Your task to perform on an android device: Open Google Chrome and click the shortcut for Amazon.com Image 0: 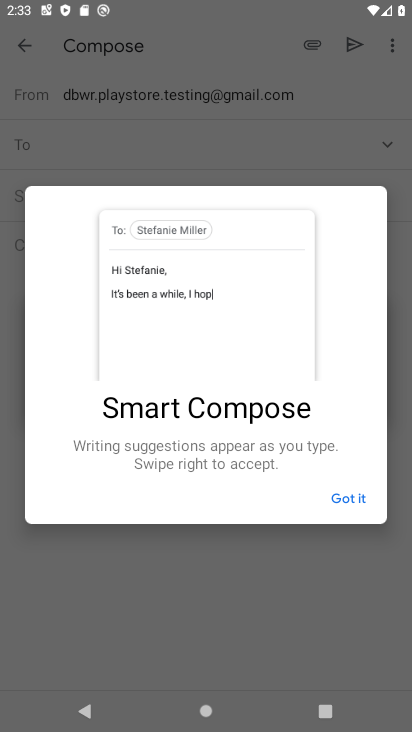
Step 0: press home button
Your task to perform on an android device: Open Google Chrome and click the shortcut for Amazon.com Image 1: 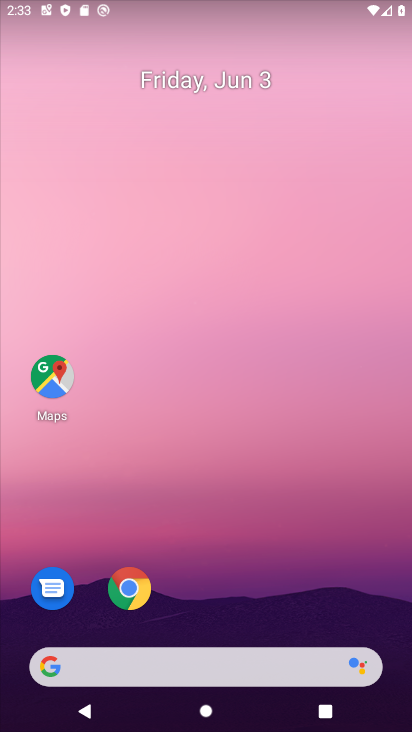
Step 1: drag from (262, 580) to (243, 65)
Your task to perform on an android device: Open Google Chrome and click the shortcut for Amazon.com Image 2: 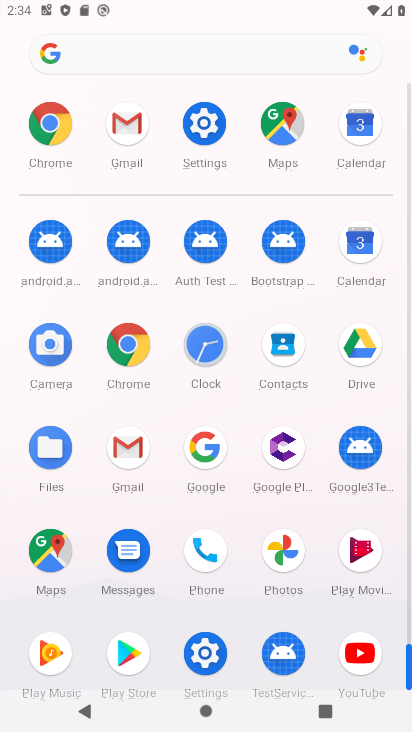
Step 2: click (136, 360)
Your task to perform on an android device: Open Google Chrome and click the shortcut for Amazon.com Image 3: 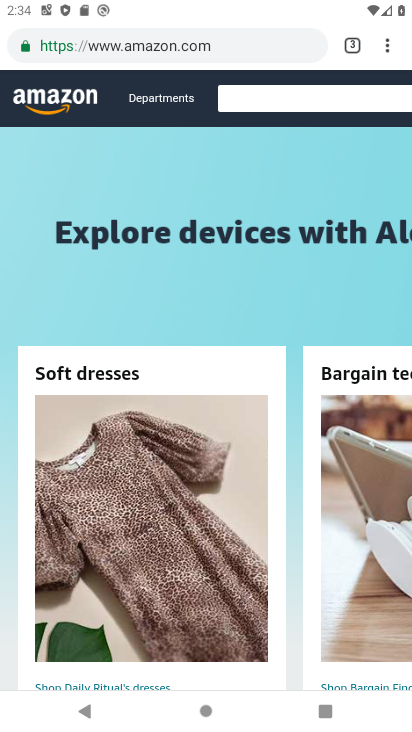
Step 3: click (360, 43)
Your task to perform on an android device: Open Google Chrome and click the shortcut for Amazon.com Image 4: 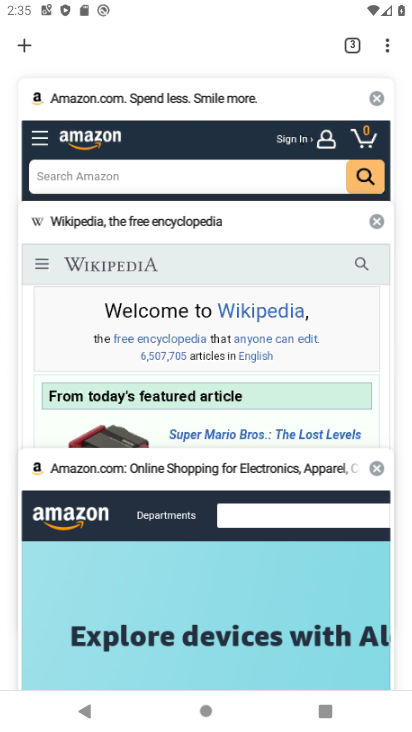
Step 4: click (25, 47)
Your task to perform on an android device: Open Google Chrome and click the shortcut for Amazon.com Image 5: 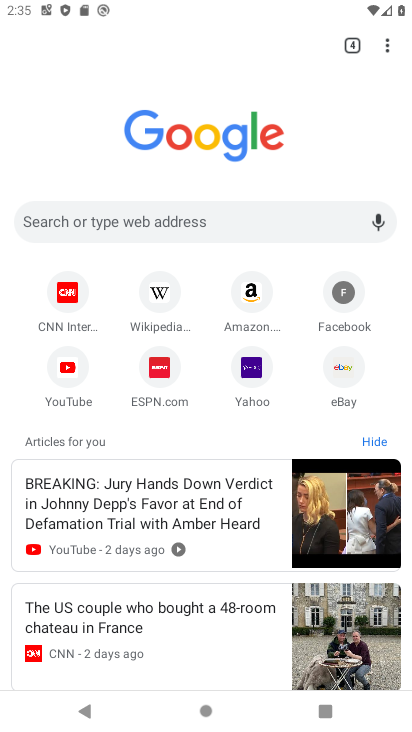
Step 5: click (255, 301)
Your task to perform on an android device: Open Google Chrome and click the shortcut for Amazon.com Image 6: 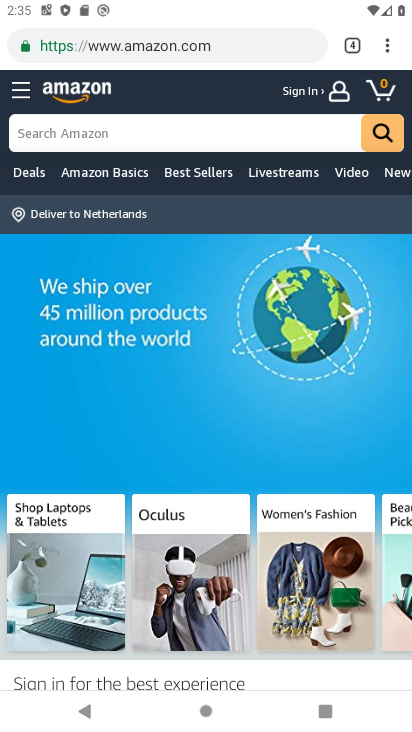
Step 6: task complete